Your task to perform on an android device: check the backup settings in the google photos Image 0: 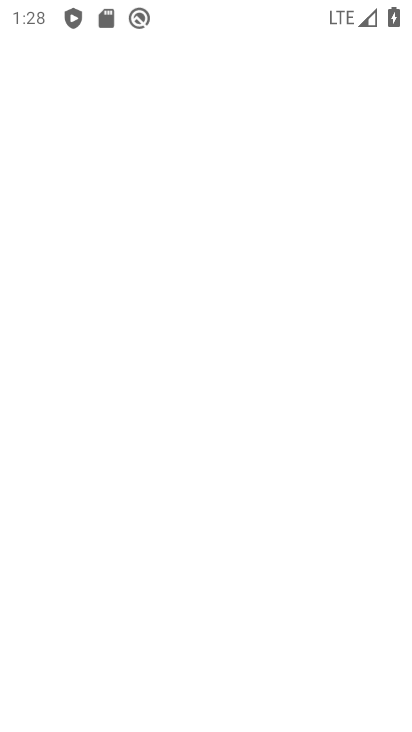
Step 0: drag from (189, 598) to (282, 119)
Your task to perform on an android device: check the backup settings in the google photos Image 1: 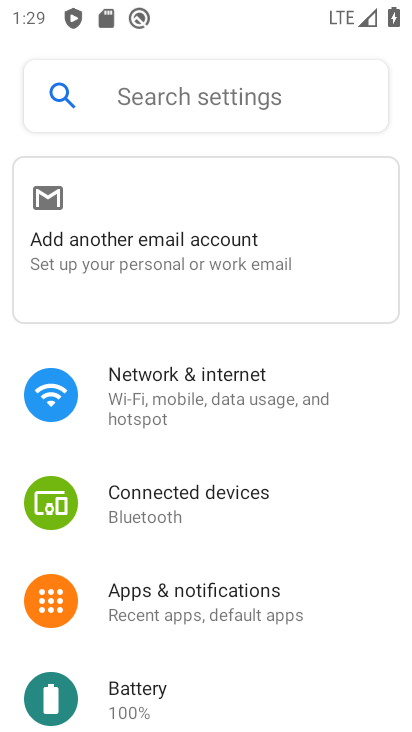
Step 1: press home button
Your task to perform on an android device: check the backup settings in the google photos Image 2: 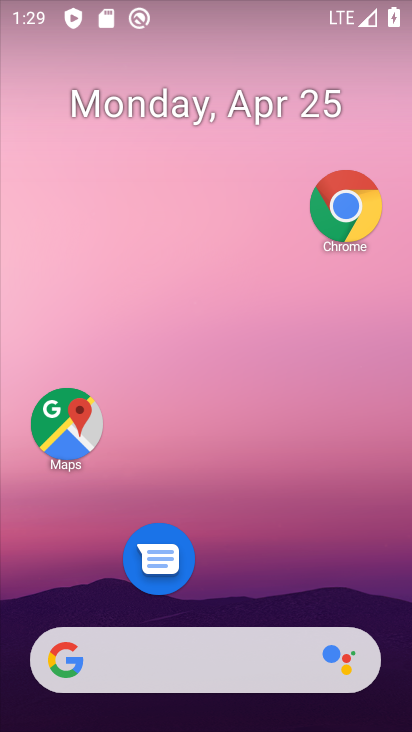
Step 2: drag from (212, 495) to (351, 1)
Your task to perform on an android device: check the backup settings in the google photos Image 3: 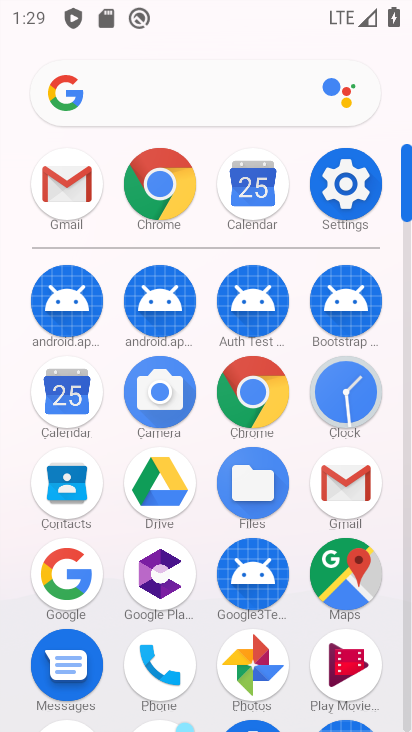
Step 3: click (241, 671)
Your task to perform on an android device: check the backup settings in the google photos Image 4: 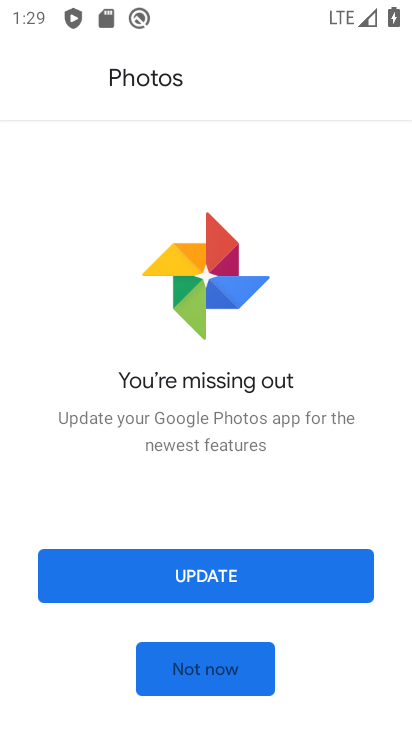
Step 4: click (227, 683)
Your task to perform on an android device: check the backup settings in the google photos Image 5: 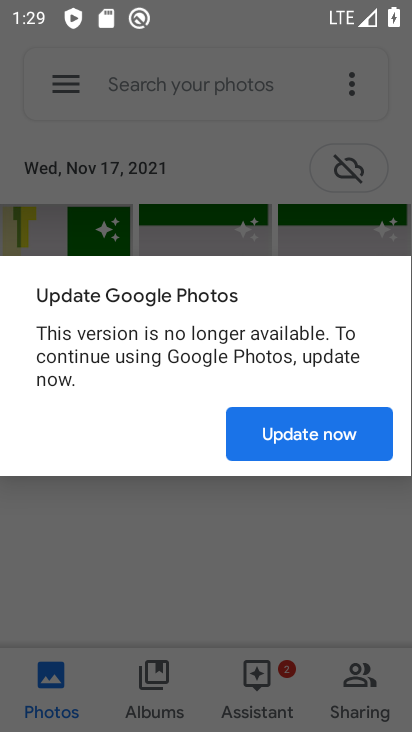
Step 5: press back button
Your task to perform on an android device: check the backup settings in the google photos Image 6: 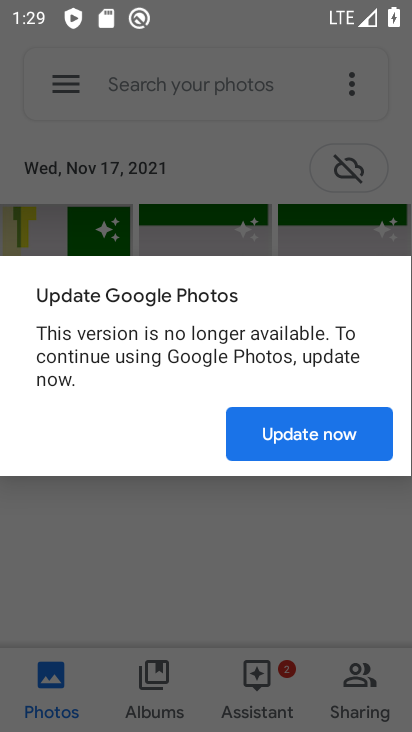
Step 6: click (327, 430)
Your task to perform on an android device: check the backup settings in the google photos Image 7: 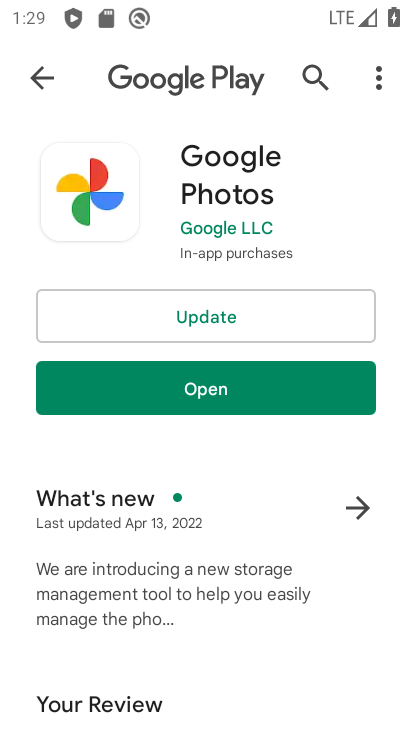
Step 7: click (199, 393)
Your task to perform on an android device: check the backup settings in the google photos Image 8: 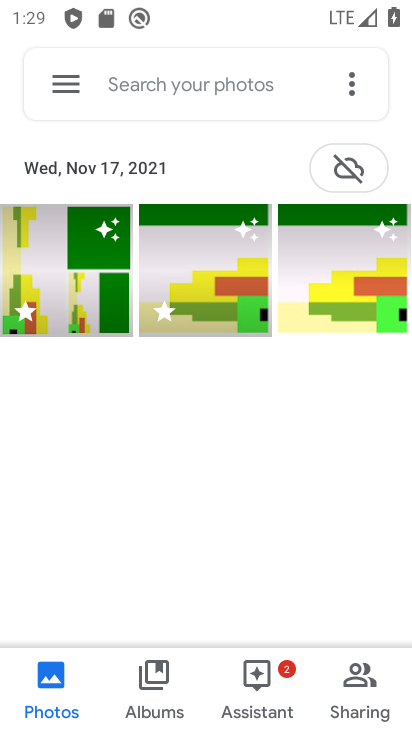
Step 8: click (67, 78)
Your task to perform on an android device: check the backup settings in the google photos Image 9: 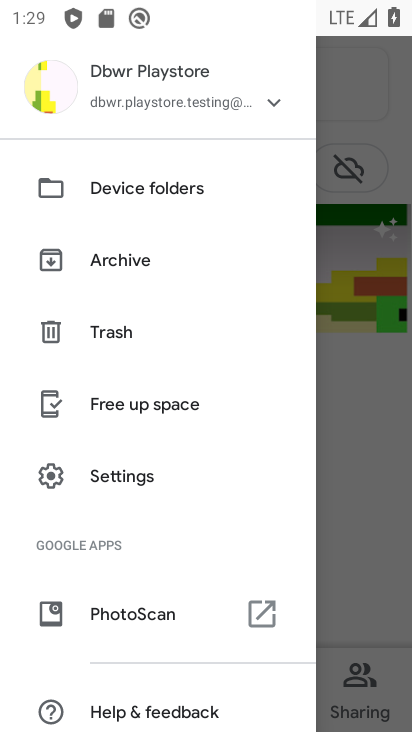
Step 9: click (128, 460)
Your task to perform on an android device: check the backup settings in the google photos Image 10: 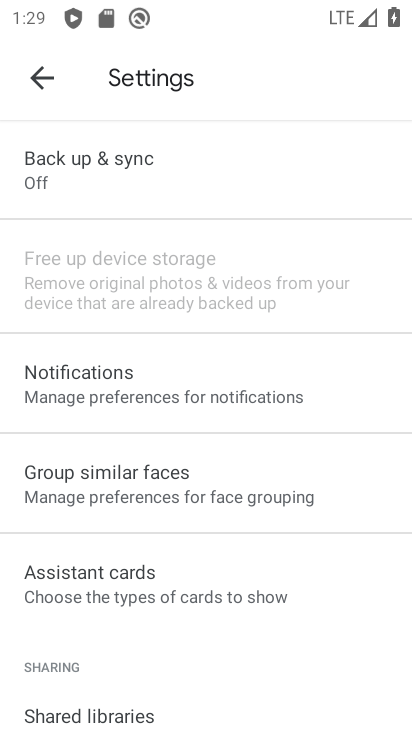
Step 10: task complete